Your task to perform on an android device: empty trash in the gmail app Image 0: 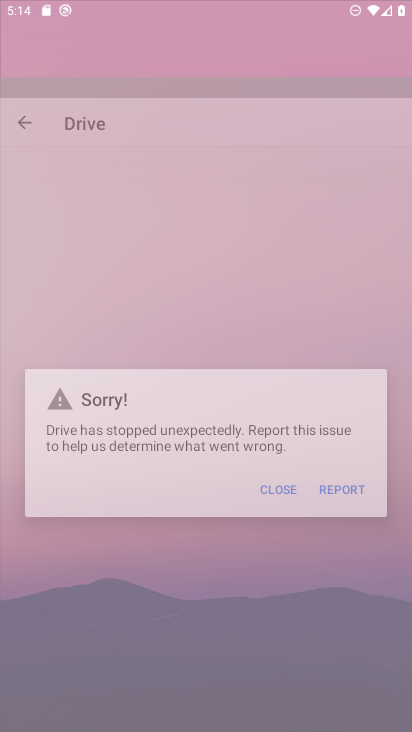
Step 0: press home button
Your task to perform on an android device: empty trash in the gmail app Image 1: 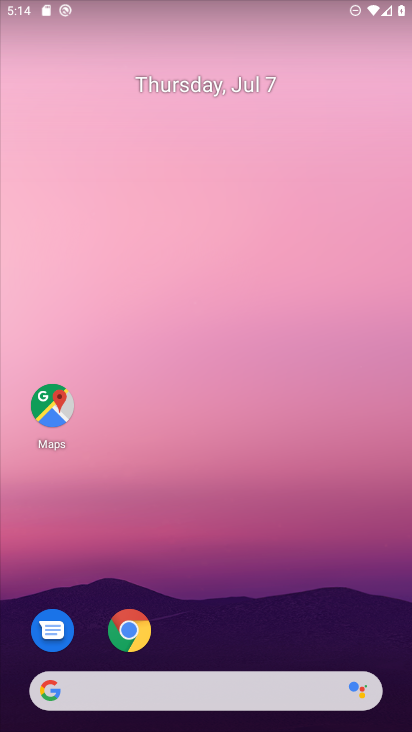
Step 1: drag from (209, 642) to (197, 182)
Your task to perform on an android device: empty trash in the gmail app Image 2: 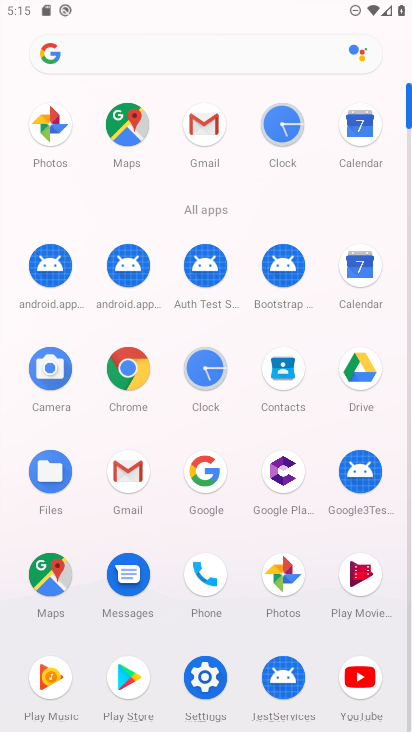
Step 2: click (208, 126)
Your task to perform on an android device: empty trash in the gmail app Image 3: 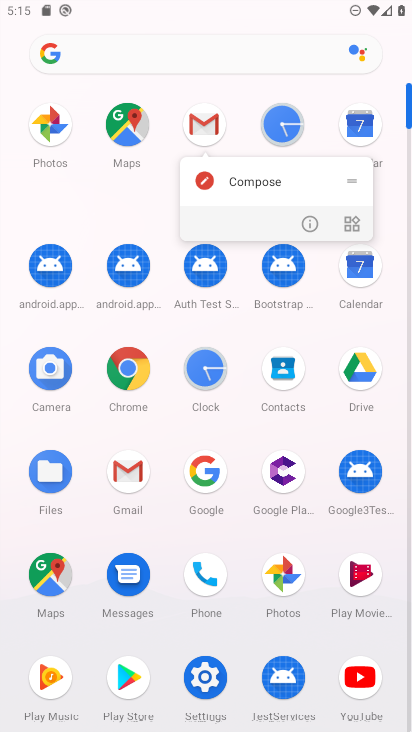
Step 3: click (198, 134)
Your task to perform on an android device: empty trash in the gmail app Image 4: 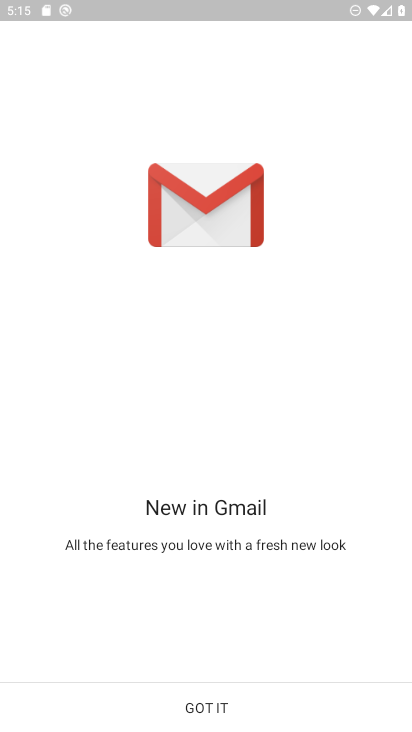
Step 4: click (247, 702)
Your task to perform on an android device: empty trash in the gmail app Image 5: 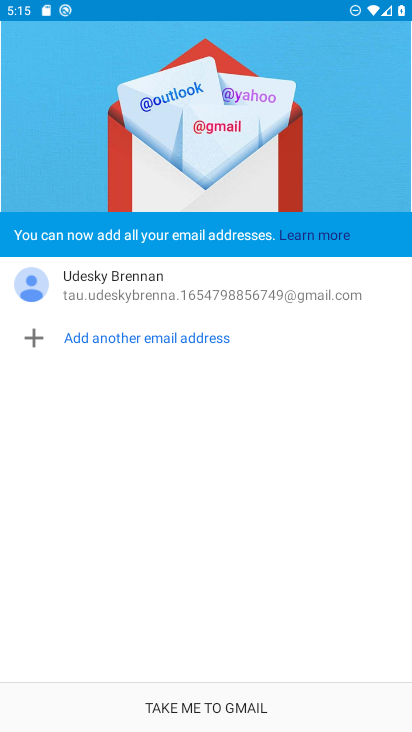
Step 5: click (211, 714)
Your task to perform on an android device: empty trash in the gmail app Image 6: 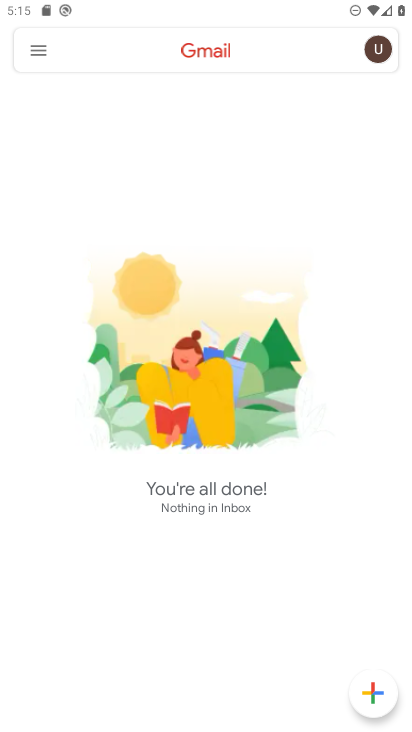
Step 6: click (42, 43)
Your task to perform on an android device: empty trash in the gmail app Image 7: 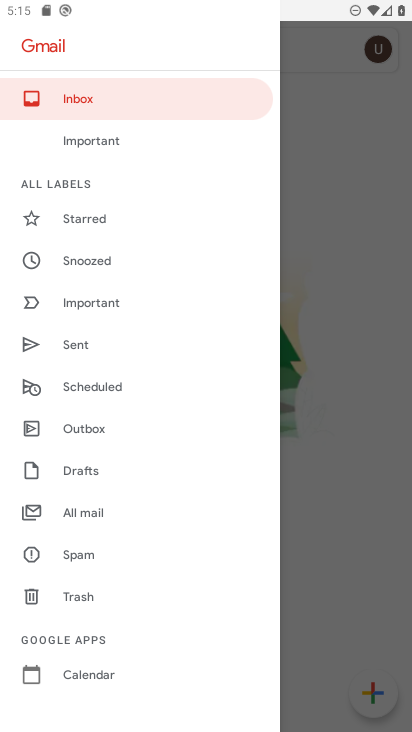
Step 7: click (89, 598)
Your task to perform on an android device: empty trash in the gmail app Image 8: 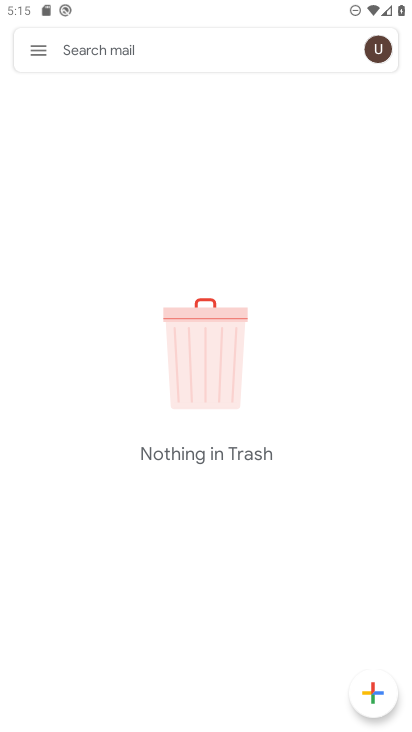
Step 8: task complete